Your task to perform on an android device: Open settings Image 0: 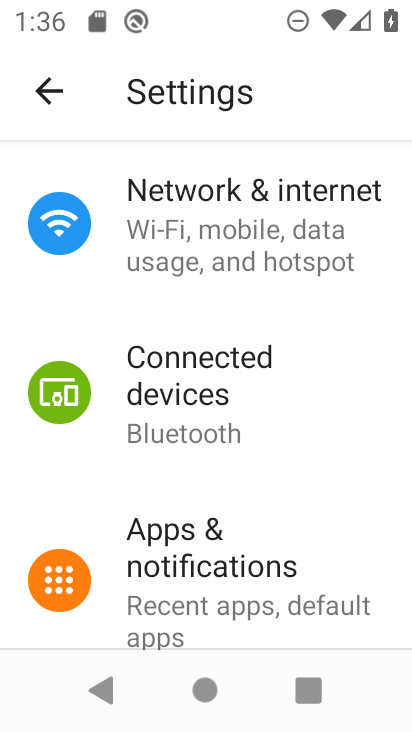
Step 0: press home button
Your task to perform on an android device: Open settings Image 1: 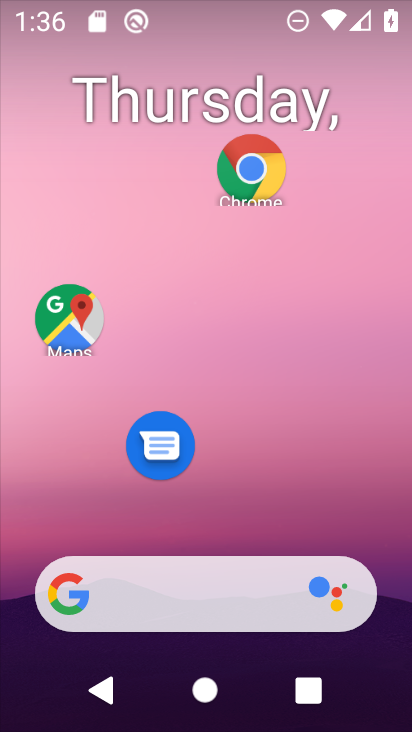
Step 1: drag from (274, 586) to (229, 152)
Your task to perform on an android device: Open settings Image 2: 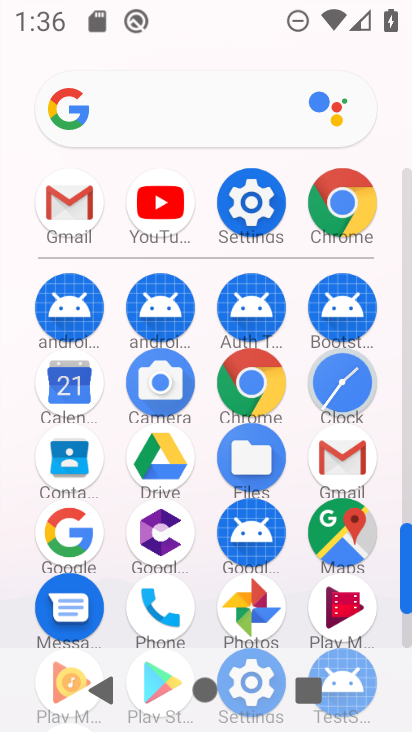
Step 2: click (254, 204)
Your task to perform on an android device: Open settings Image 3: 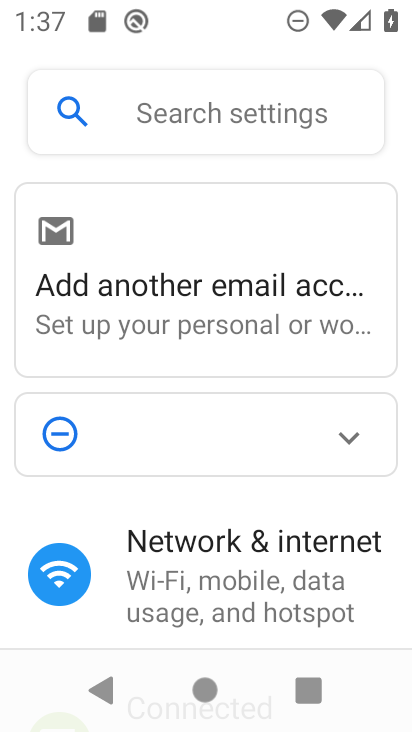
Step 3: task complete